Your task to perform on an android device: turn on improve location accuracy Image 0: 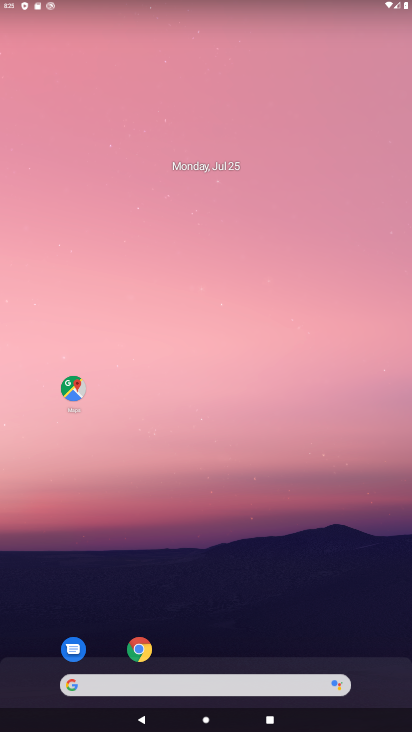
Step 0: drag from (199, 674) to (76, 123)
Your task to perform on an android device: turn on improve location accuracy Image 1: 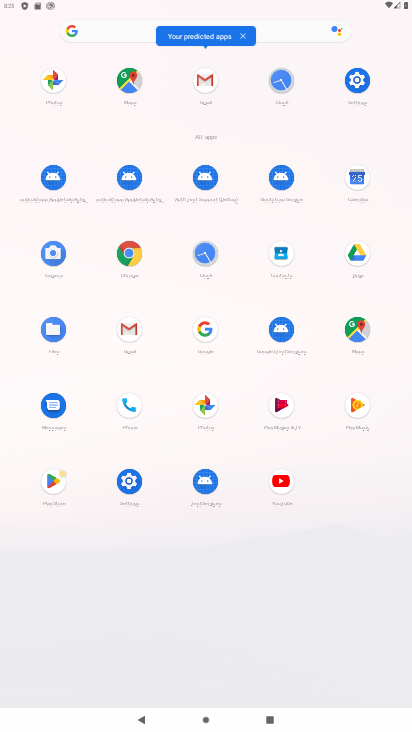
Step 1: click (123, 482)
Your task to perform on an android device: turn on improve location accuracy Image 2: 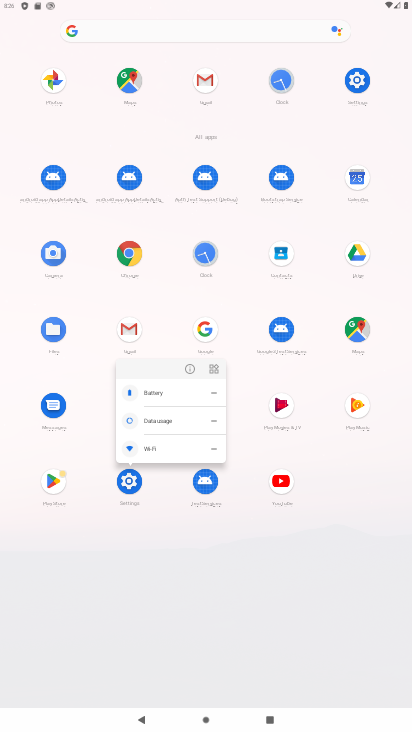
Step 2: click (123, 482)
Your task to perform on an android device: turn on improve location accuracy Image 3: 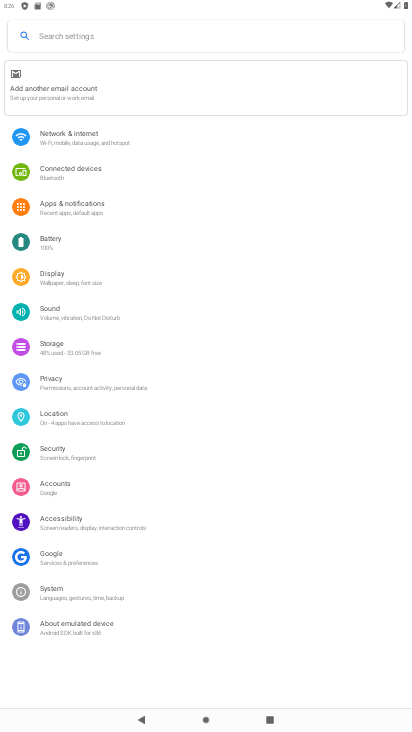
Step 3: click (54, 424)
Your task to perform on an android device: turn on improve location accuracy Image 4: 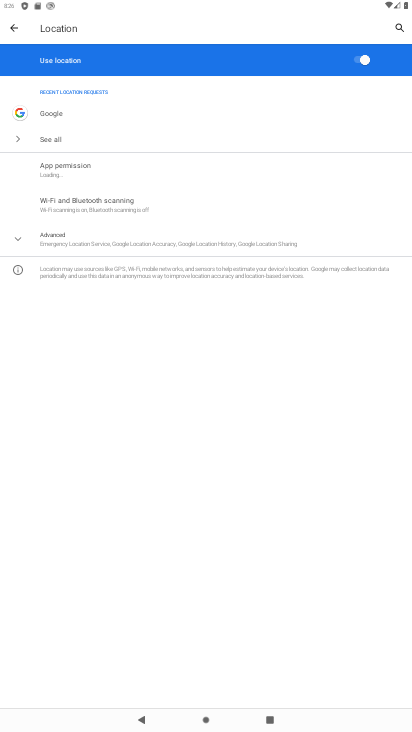
Step 4: click (29, 227)
Your task to perform on an android device: turn on improve location accuracy Image 5: 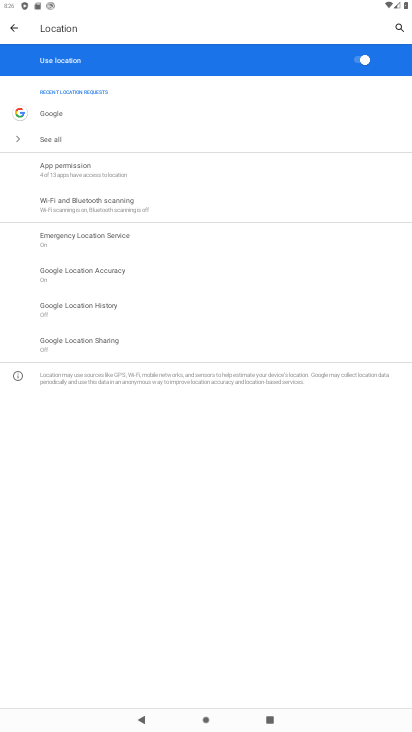
Step 5: click (98, 264)
Your task to perform on an android device: turn on improve location accuracy Image 6: 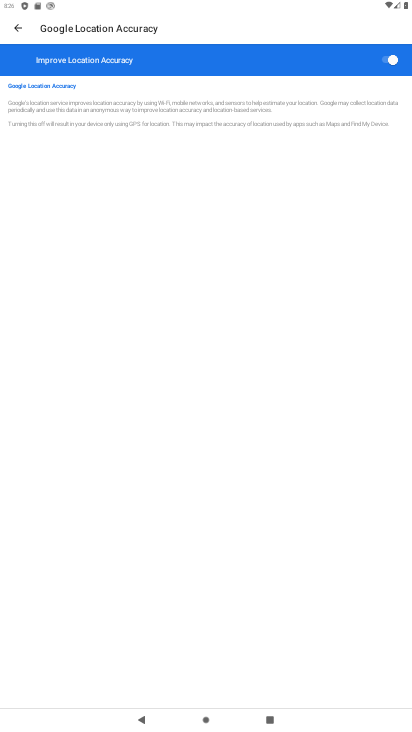
Step 6: task complete